Your task to perform on an android device: change notifications settings Image 0: 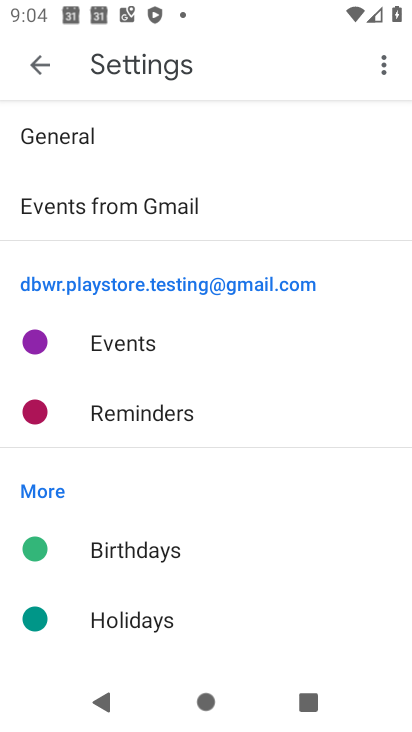
Step 0: press home button
Your task to perform on an android device: change notifications settings Image 1: 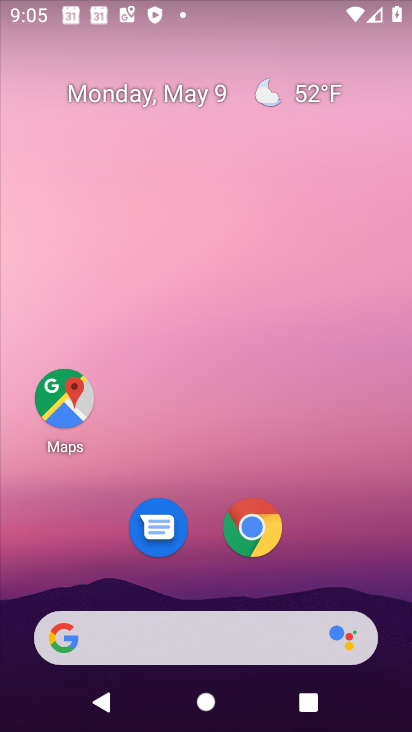
Step 1: drag from (207, 572) to (245, 76)
Your task to perform on an android device: change notifications settings Image 2: 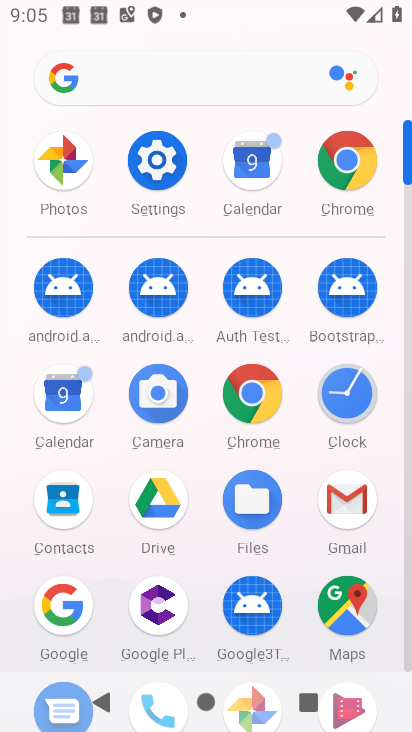
Step 2: click (161, 156)
Your task to perform on an android device: change notifications settings Image 3: 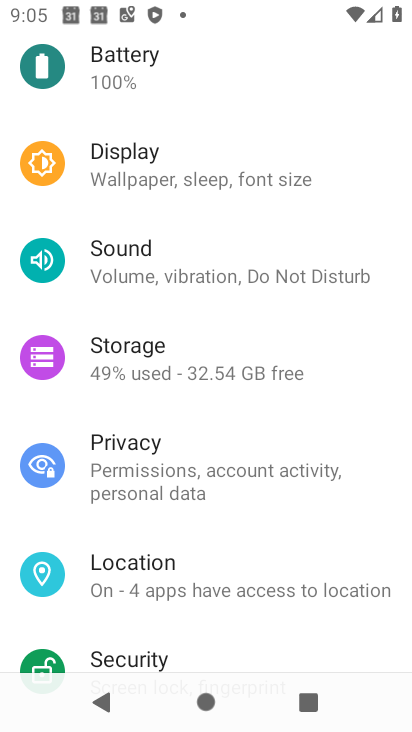
Step 3: drag from (165, 143) to (159, 552)
Your task to perform on an android device: change notifications settings Image 4: 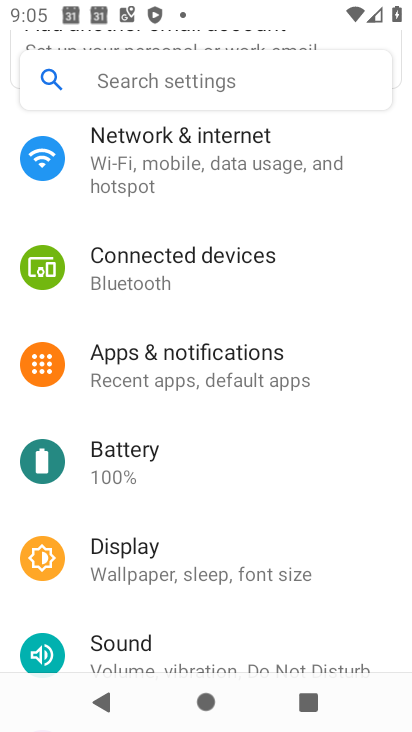
Step 4: click (157, 369)
Your task to perform on an android device: change notifications settings Image 5: 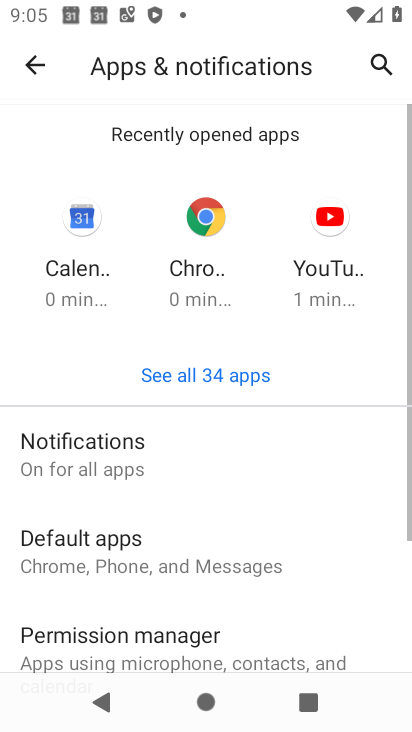
Step 5: click (128, 461)
Your task to perform on an android device: change notifications settings Image 6: 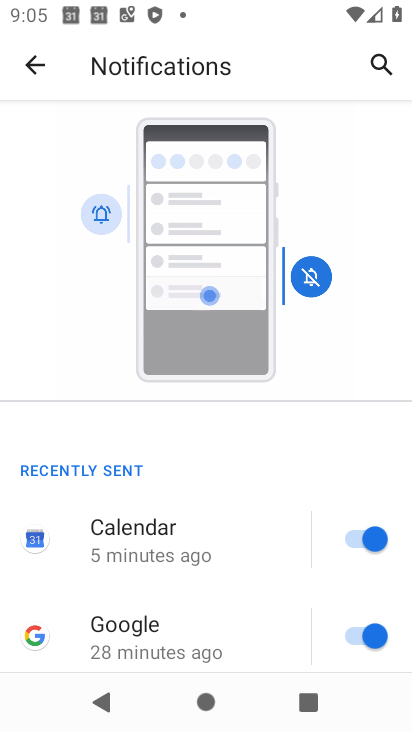
Step 6: drag from (217, 557) to (267, 82)
Your task to perform on an android device: change notifications settings Image 7: 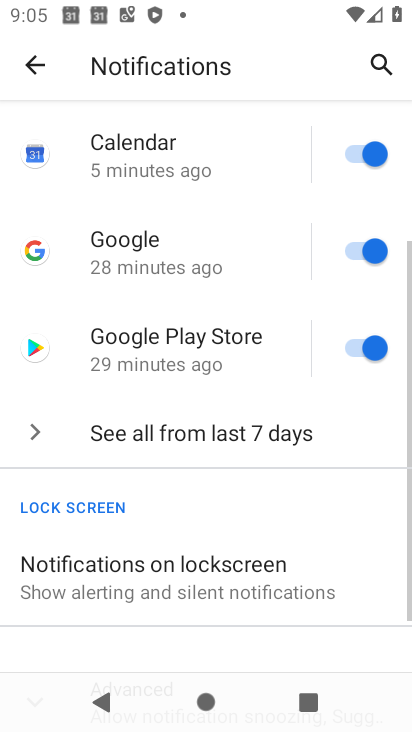
Step 7: click (166, 631)
Your task to perform on an android device: change notifications settings Image 8: 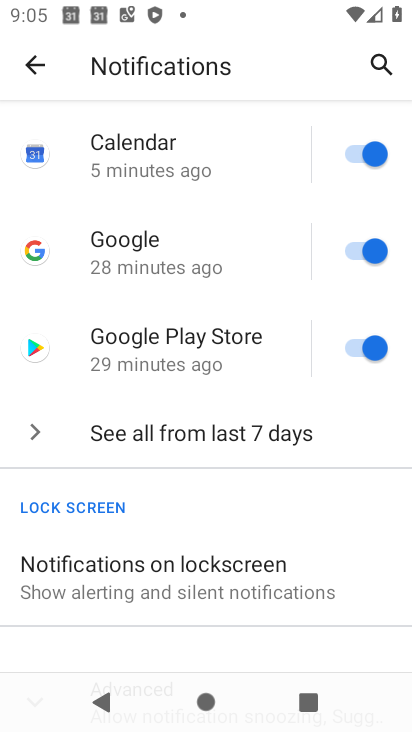
Step 8: drag from (169, 630) to (183, 234)
Your task to perform on an android device: change notifications settings Image 9: 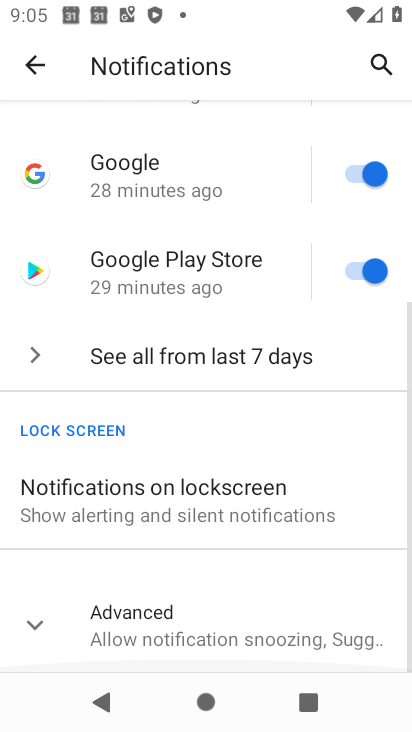
Step 9: click (142, 631)
Your task to perform on an android device: change notifications settings Image 10: 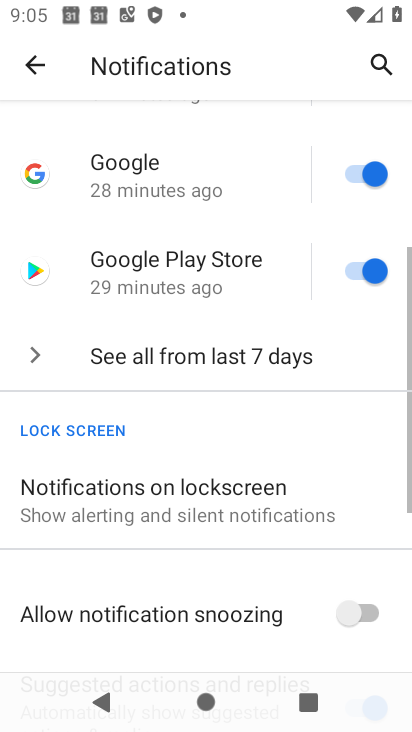
Step 10: drag from (255, 559) to (246, 84)
Your task to perform on an android device: change notifications settings Image 11: 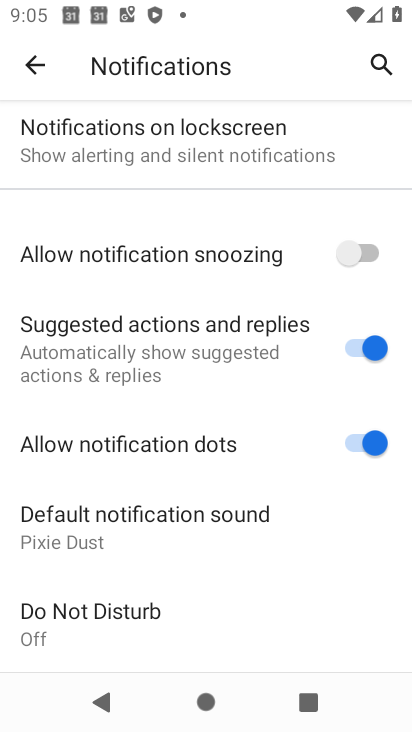
Step 11: click (344, 252)
Your task to perform on an android device: change notifications settings Image 12: 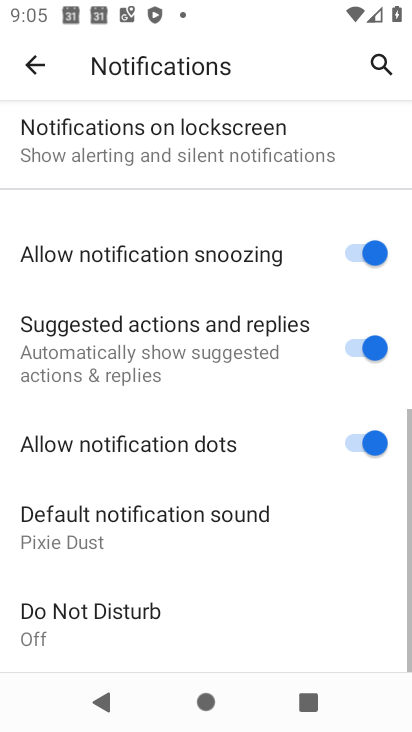
Step 12: click (371, 350)
Your task to perform on an android device: change notifications settings Image 13: 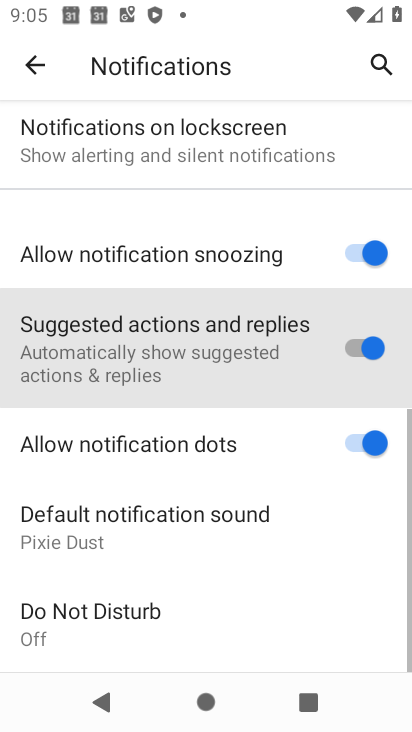
Step 13: click (372, 426)
Your task to perform on an android device: change notifications settings Image 14: 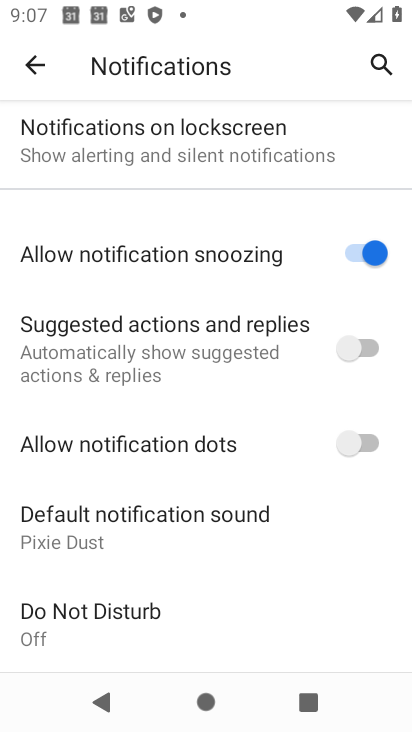
Step 14: task complete